Your task to perform on an android device: Check the weather Image 0: 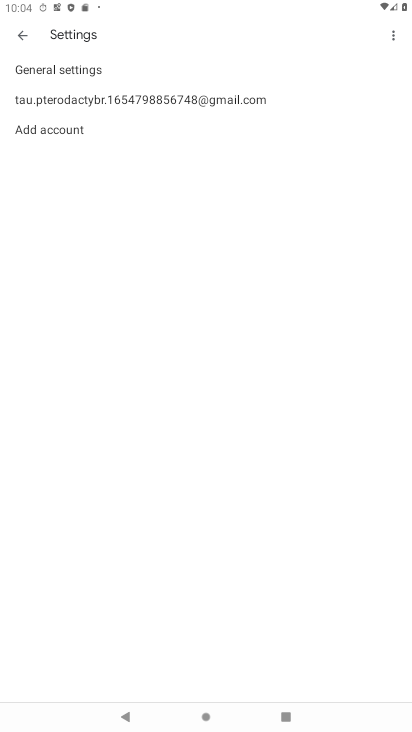
Step 0: press home button
Your task to perform on an android device: Check the weather Image 1: 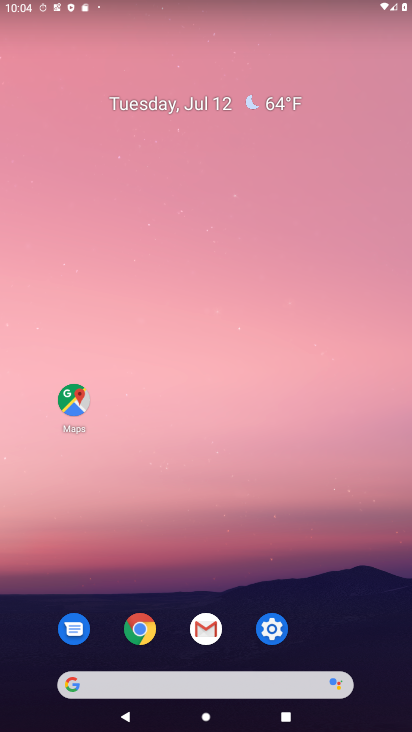
Step 1: click (220, 676)
Your task to perform on an android device: Check the weather Image 2: 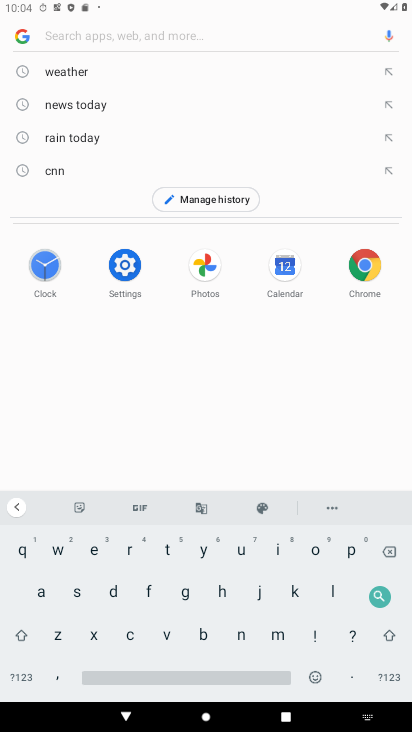
Step 2: click (84, 74)
Your task to perform on an android device: Check the weather Image 3: 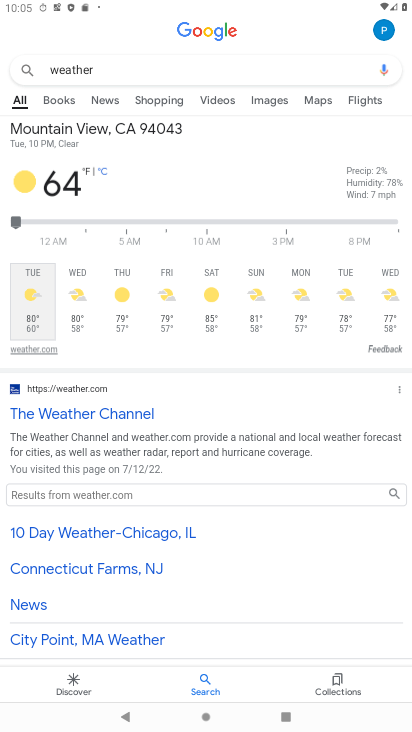
Step 3: task complete